Your task to perform on an android device: change the clock display to show seconds Image 0: 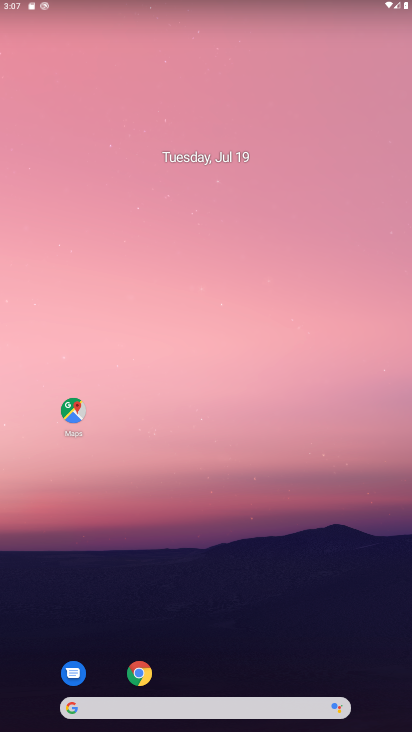
Step 0: drag from (230, 626) to (237, 390)
Your task to perform on an android device: change the clock display to show seconds Image 1: 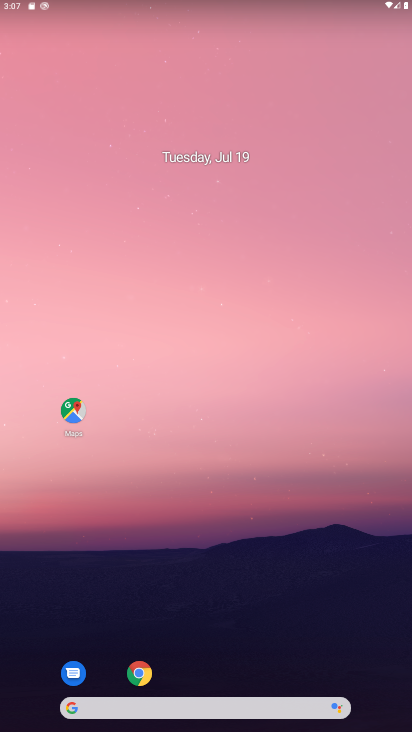
Step 1: drag from (189, 664) to (234, 258)
Your task to perform on an android device: change the clock display to show seconds Image 2: 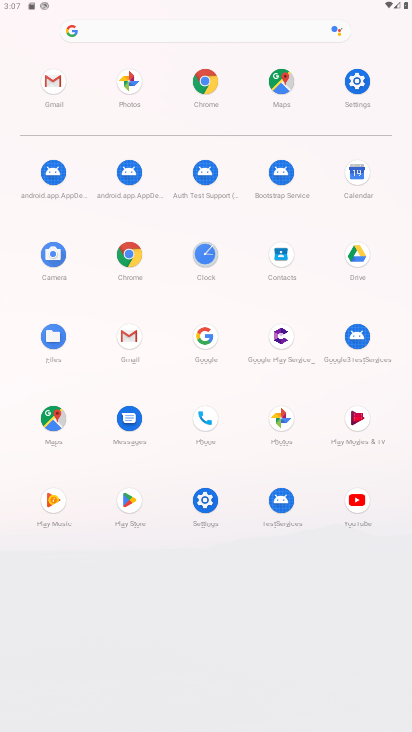
Step 2: click (206, 262)
Your task to perform on an android device: change the clock display to show seconds Image 3: 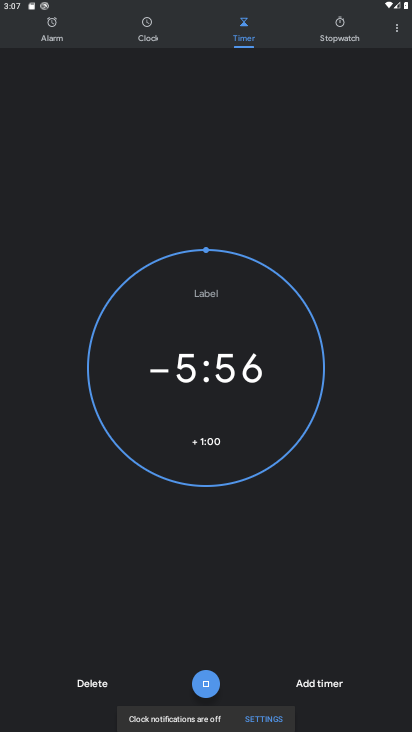
Step 3: click (93, 682)
Your task to perform on an android device: change the clock display to show seconds Image 4: 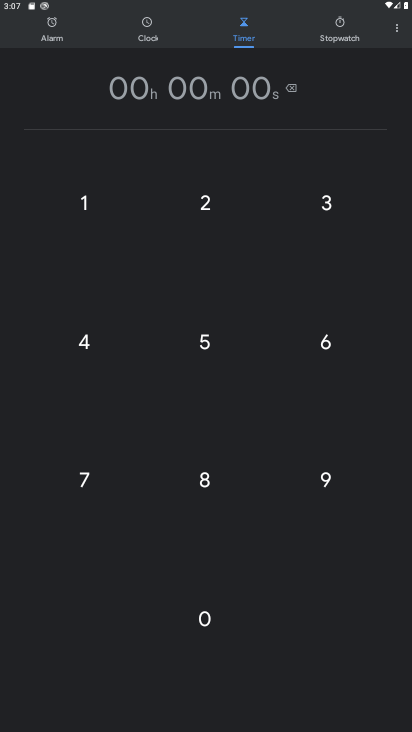
Step 4: click (395, 36)
Your task to perform on an android device: change the clock display to show seconds Image 5: 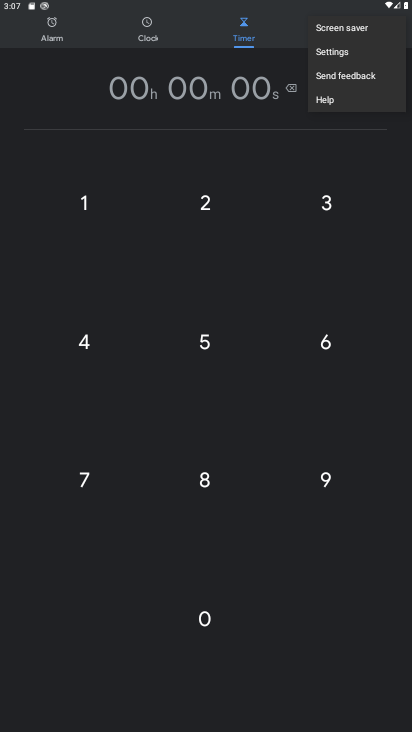
Step 5: click (342, 52)
Your task to perform on an android device: change the clock display to show seconds Image 6: 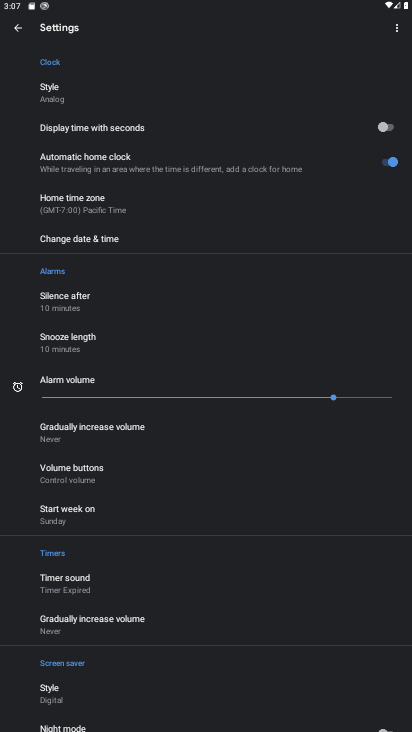
Step 6: click (62, 92)
Your task to perform on an android device: change the clock display to show seconds Image 7: 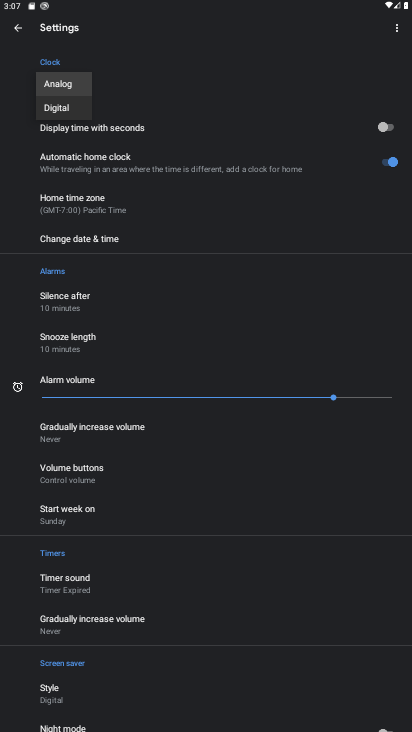
Step 7: click (64, 111)
Your task to perform on an android device: change the clock display to show seconds Image 8: 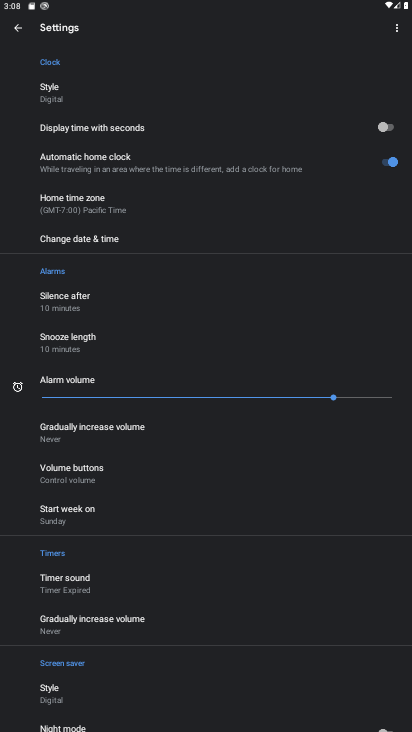
Step 8: task complete